Your task to perform on an android device: Open Maps and search for coffee Image 0: 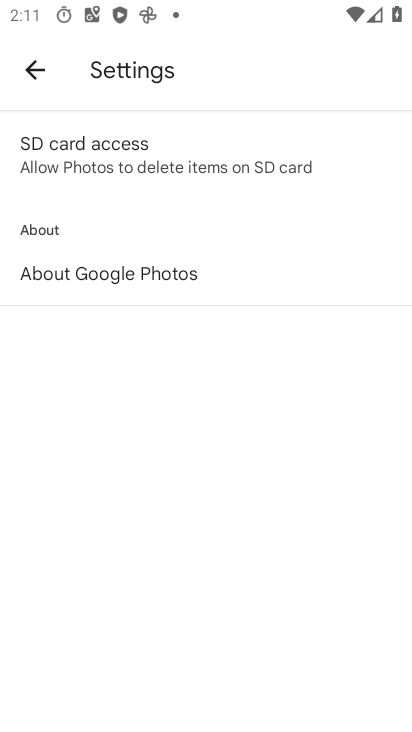
Step 0: press home button
Your task to perform on an android device: Open Maps and search for coffee Image 1: 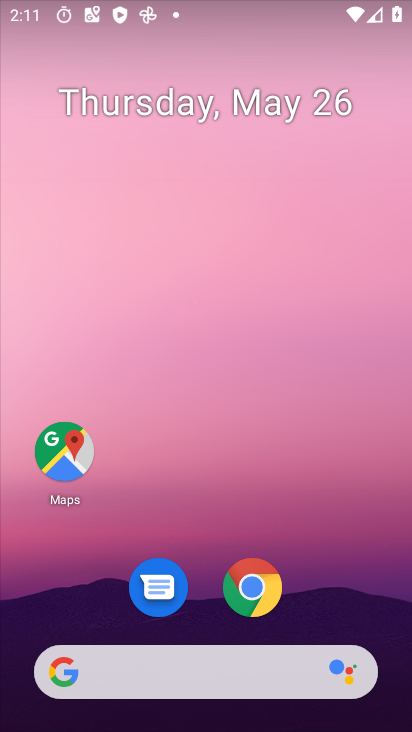
Step 1: drag from (374, 630) to (388, 174)
Your task to perform on an android device: Open Maps and search for coffee Image 2: 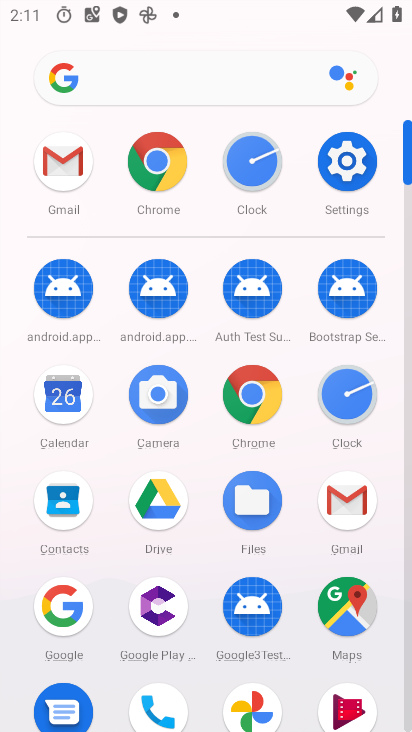
Step 2: click (365, 607)
Your task to perform on an android device: Open Maps and search for coffee Image 3: 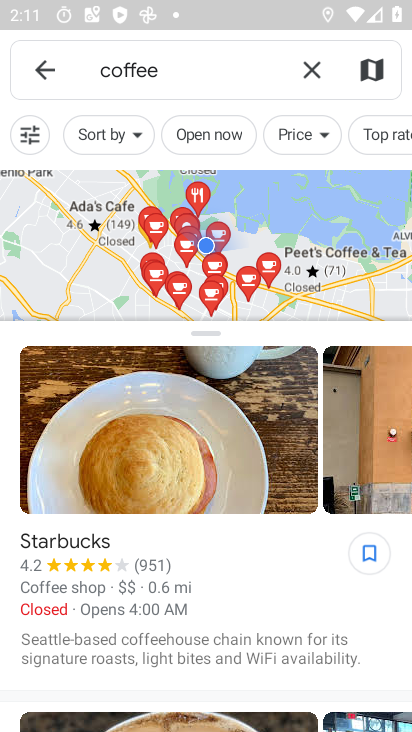
Step 3: task complete